Your task to perform on an android device: Open Wikipedia Image 0: 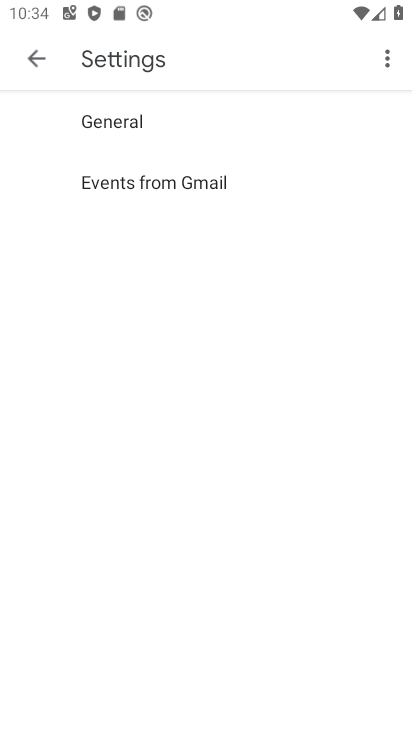
Step 0: press home button
Your task to perform on an android device: Open Wikipedia Image 1: 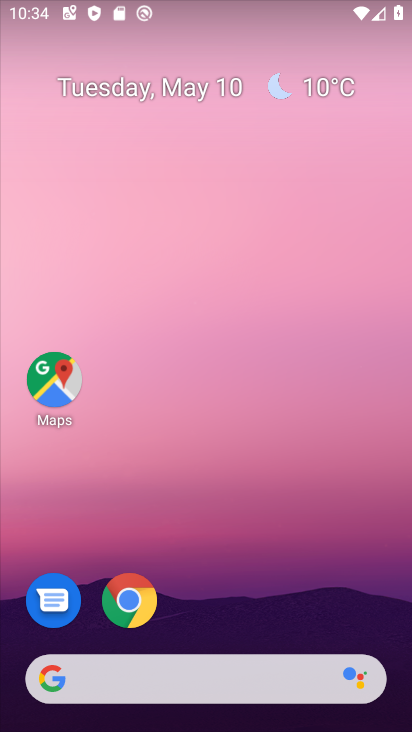
Step 1: click (141, 598)
Your task to perform on an android device: Open Wikipedia Image 2: 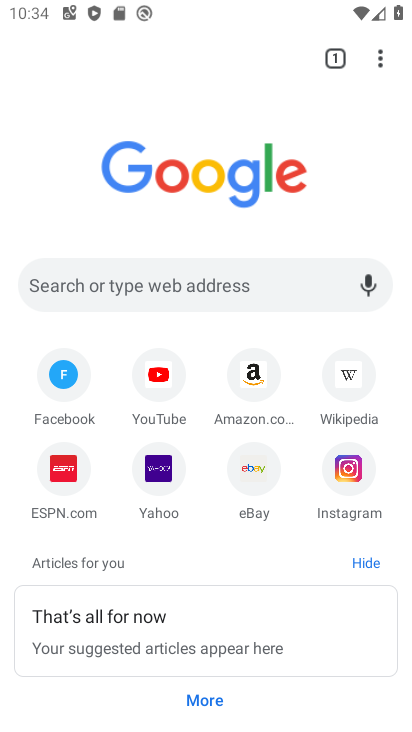
Step 2: click (350, 380)
Your task to perform on an android device: Open Wikipedia Image 3: 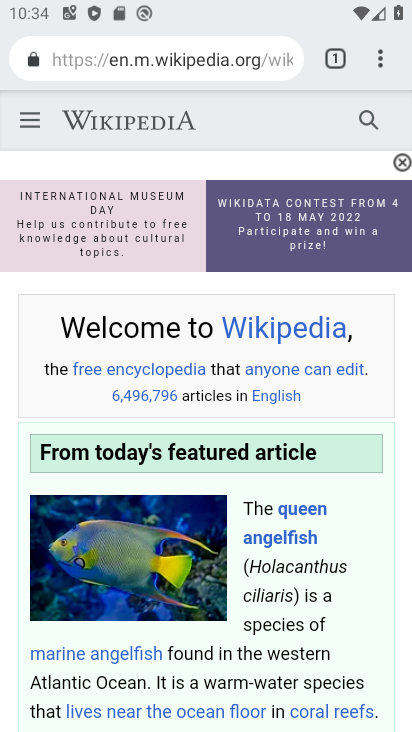
Step 3: task complete